Your task to perform on an android device: turn off location Image 0: 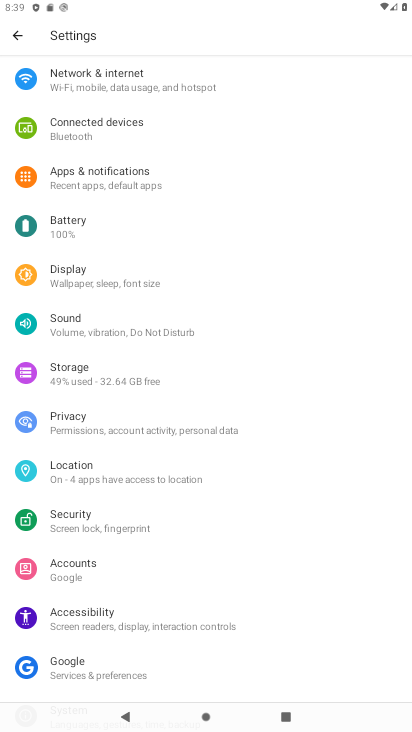
Step 0: click (91, 487)
Your task to perform on an android device: turn off location Image 1: 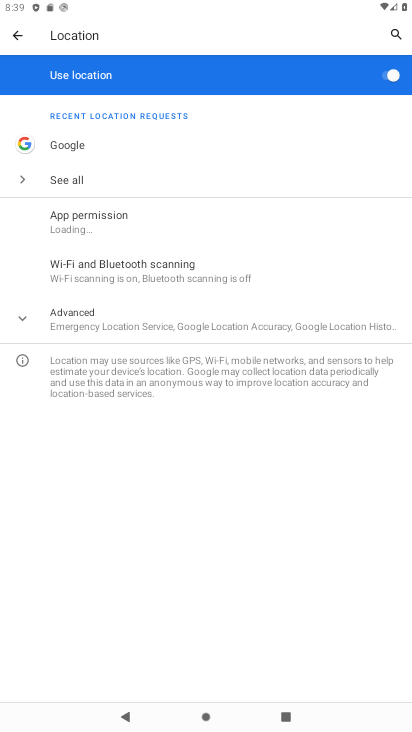
Step 1: click (384, 74)
Your task to perform on an android device: turn off location Image 2: 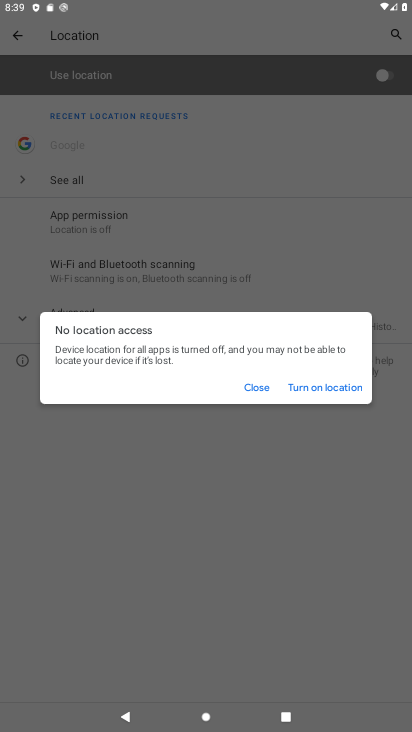
Step 2: task complete